Your task to perform on an android device: Open Amazon Image 0: 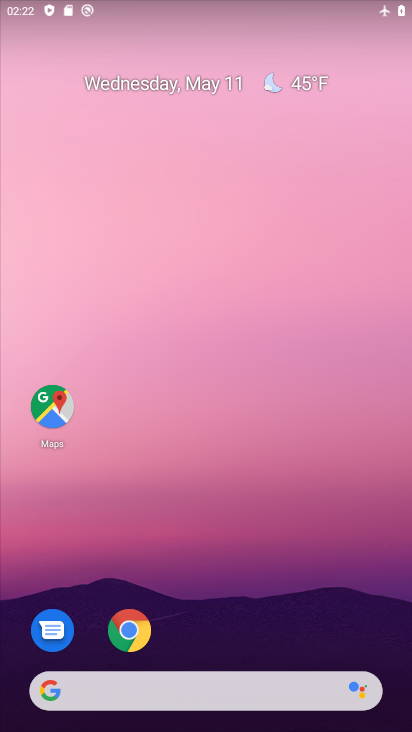
Step 0: click (131, 631)
Your task to perform on an android device: Open Amazon Image 1: 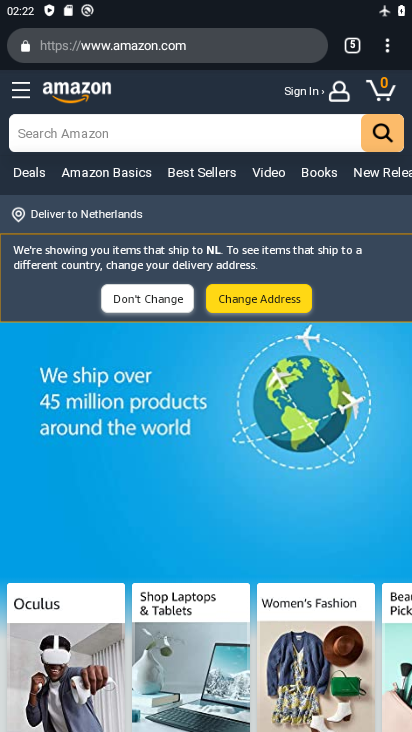
Step 1: task complete